Your task to perform on an android device: turn on airplane mode Image 0: 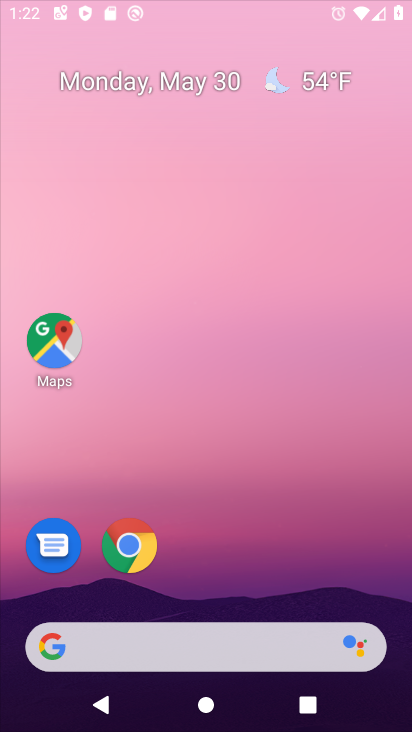
Step 0: press home button
Your task to perform on an android device: turn on airplane mode Image 1: 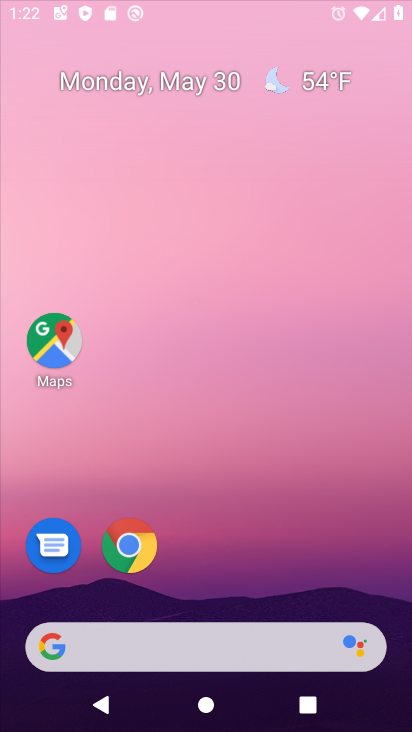
Step 1: click (133, 541)
Your task to perform on an android device: turn on airplane mode Image 2: 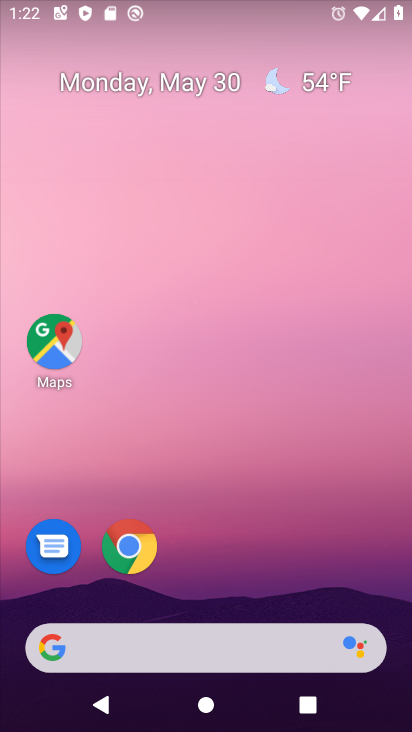
Step 2: click (127, 546)
Your task to perform on an android device: turn on airplane mode Image 3: 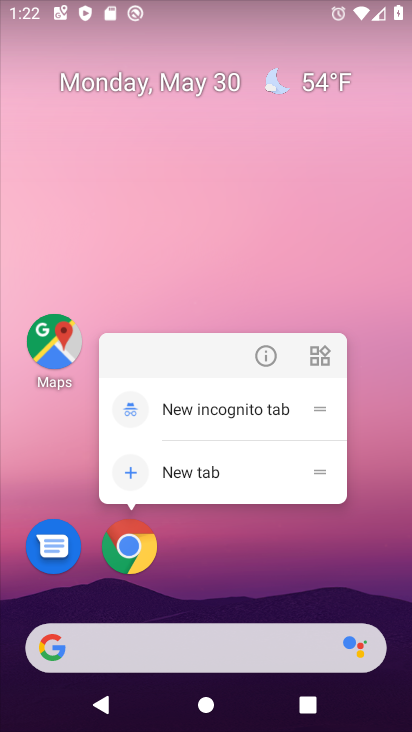
Step 3: click (272, 520)
Your task to perform on an android device: turn on airplane mode Image 4: 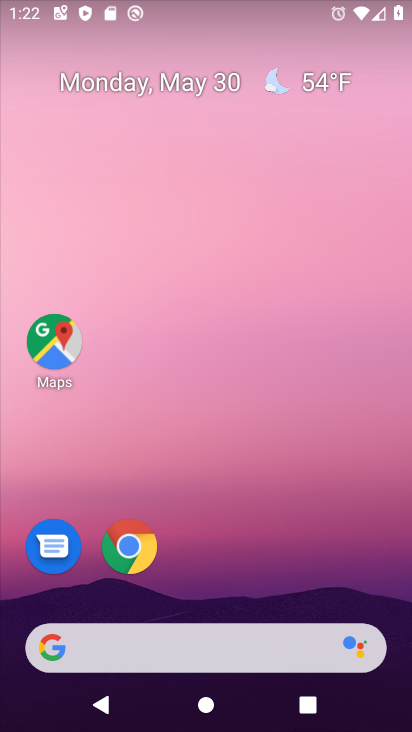
Step 4: drag from (183, 7) to (132, 533)
Your task to perform on an android device: turn on airplane mode Image 5: 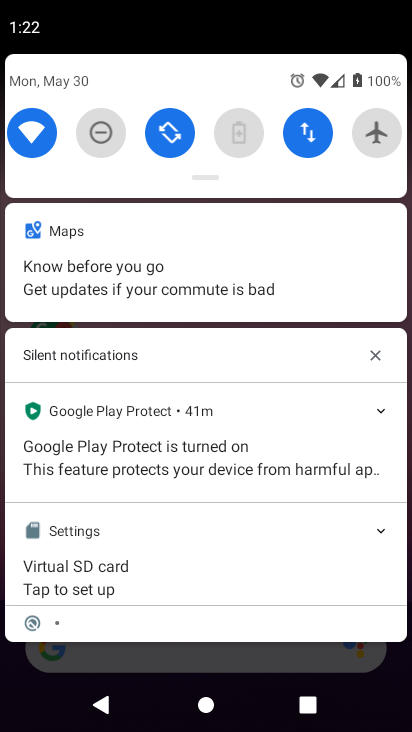
Step 5: click (380, 130)
Your task to perform on an android device: turn on airplane mode Image 6: 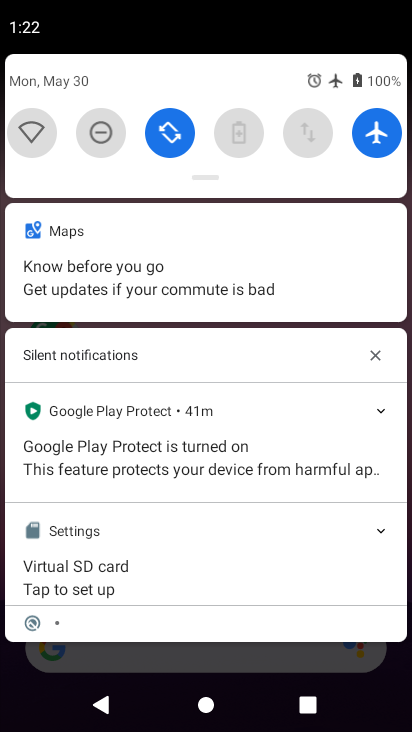
Step 6: task complete